Your task to perform on an android device: Open Reddit.com Image 0: 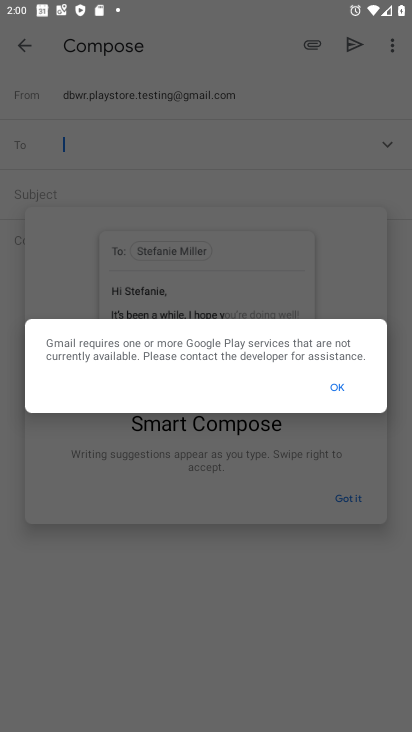
Step 0: press home button
Your task to perform on an android device: Open Reddit.com Image 1: 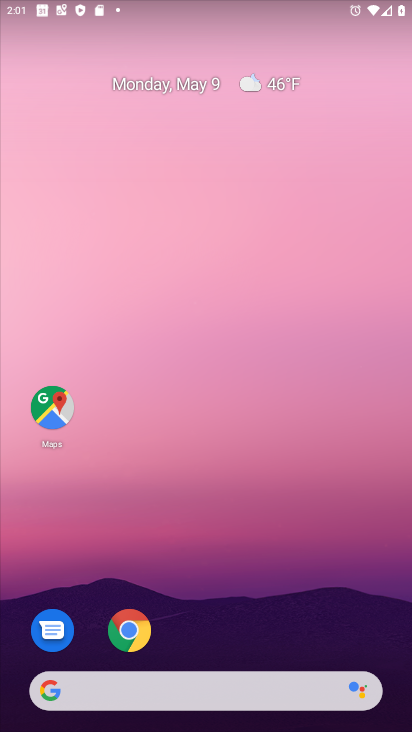
Step 1: drag from (295, 704) to (373, 242)
Your task to perform on an android device: Open Reddit.com Image 2: 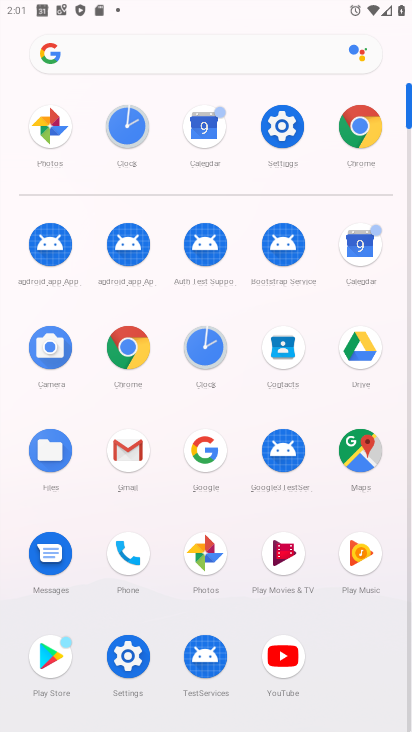
Step 2: click (354, 140)
Your task to perform on an android device: Open Reddit.com Image 3: 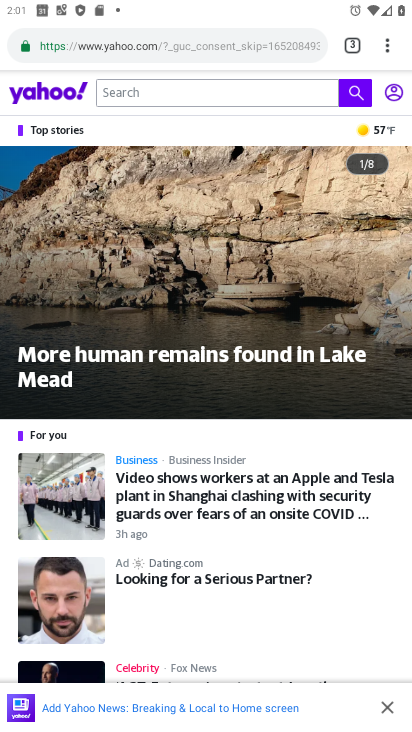
Step 3: click (189, 46)
Your task to perform on an android device: Open Reddit.com Image 4: 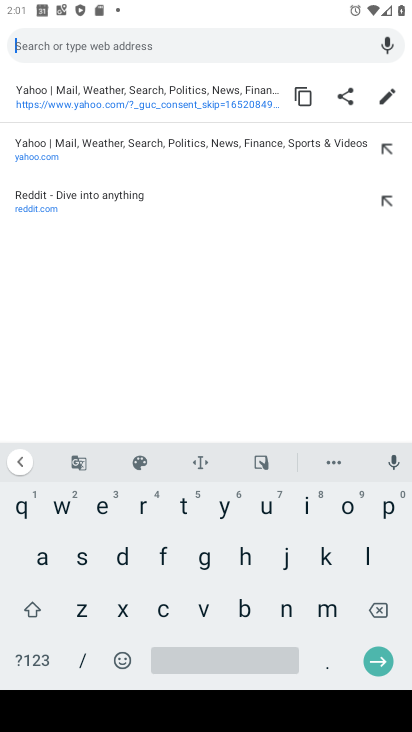
Step 4: click (145, 505)
Your task to perform on an android device: Open Reddit.com Image 5: 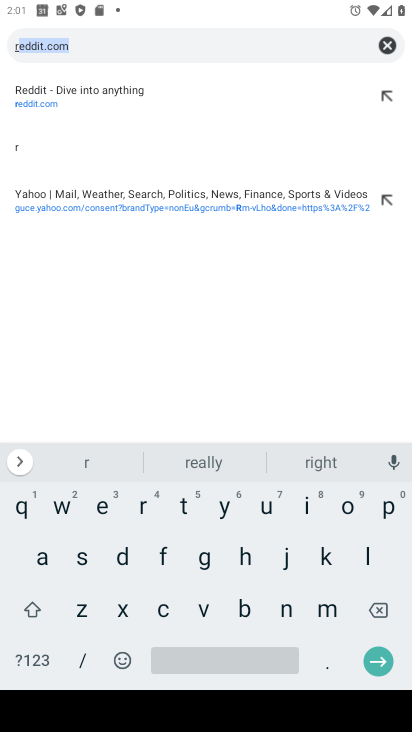
Step 5: click (96, 513)
Your task to perform on an android device: Open Reddit.com Image 6: 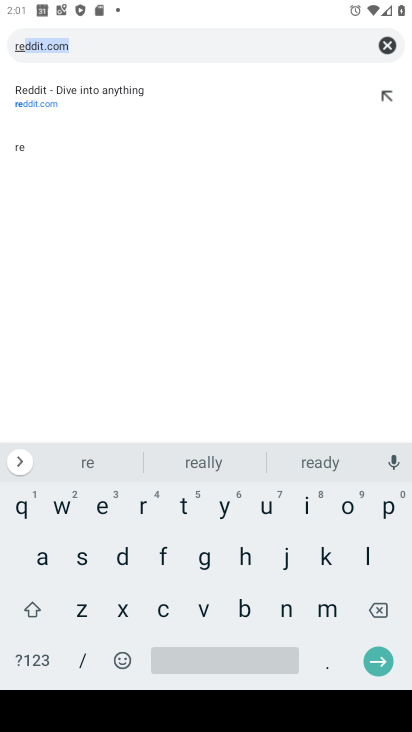
Step 6: click (115, 83)
Your task to perform on an android device: Open Reddit.com Image 7: 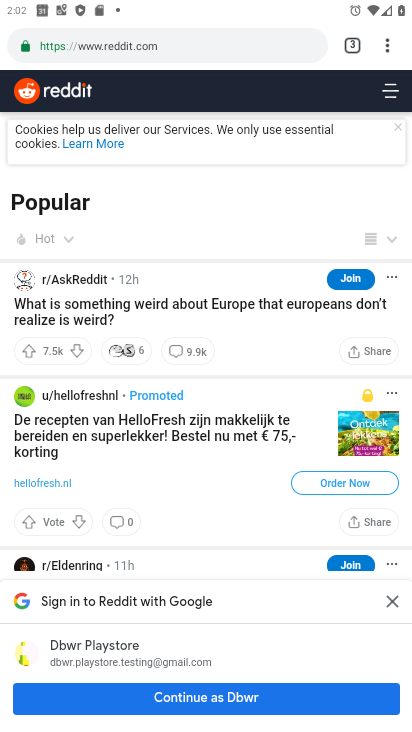
Step 7: task complete